Your task to perform on an android device: Check the news Image 0: 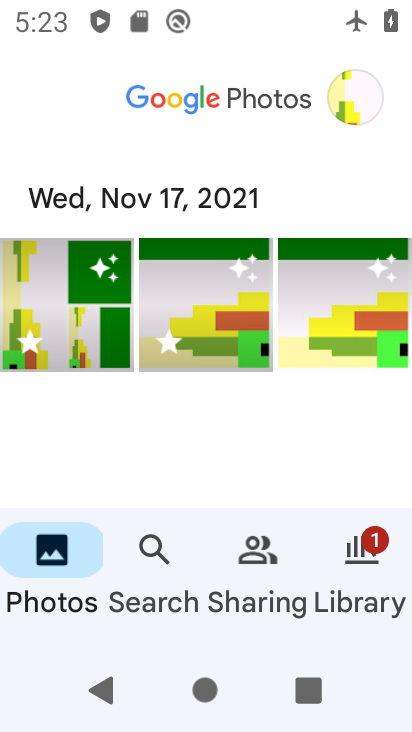
Step 0: press home button
Your task to perform on an android device: Check the news Image 1: 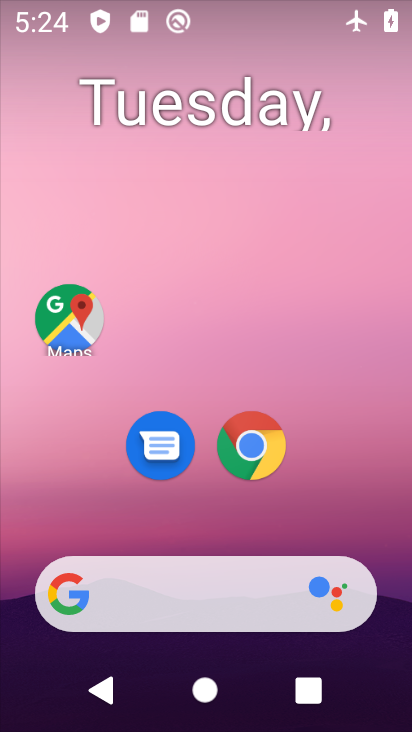
Step 1: drag from (303, 513) to (332, 74)
Your task to perform on an android device: Check the news Image 2: 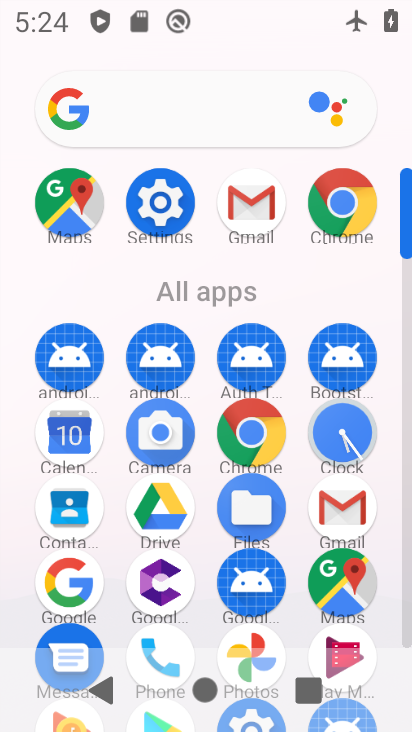
Step 2: drag from (330, 3) to (314, 392)
Your task to perform on an android device: Check the news Image 3: 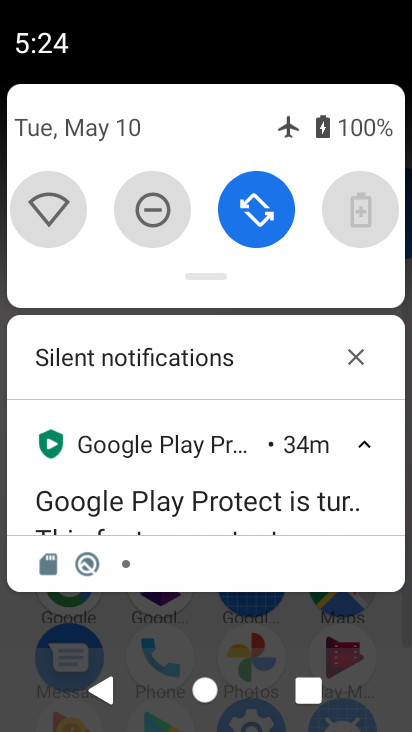
Step 3: drag from (307, 231) to (291, 542)
Your task to perform on an android device: Check the news Image 4: 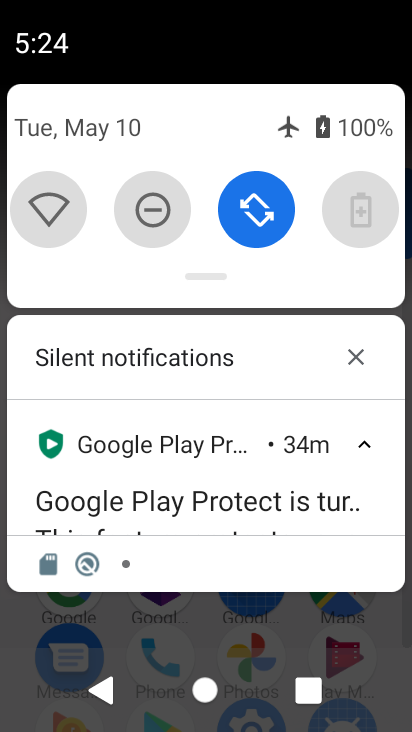
Step 4: drag from (393, 171) to (0, 169)
Your task to perform on an android device: Check the news Image 5: 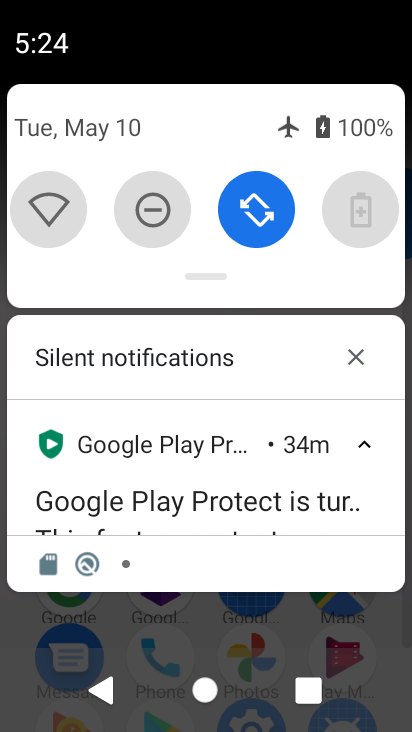
Step 5: drag from (304, 239) to (13, 217)
Your task to perform on an android device: Check the news Image 6: 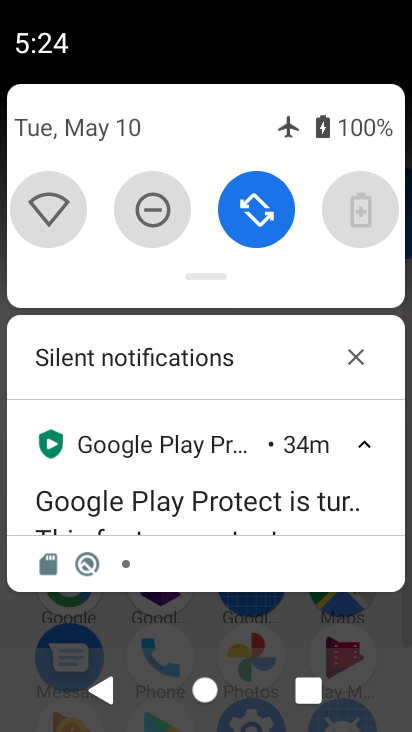
Step 6: drag from (228, 266) to (219, 643)
Your task to perform on an android device: Check the news Image 7: 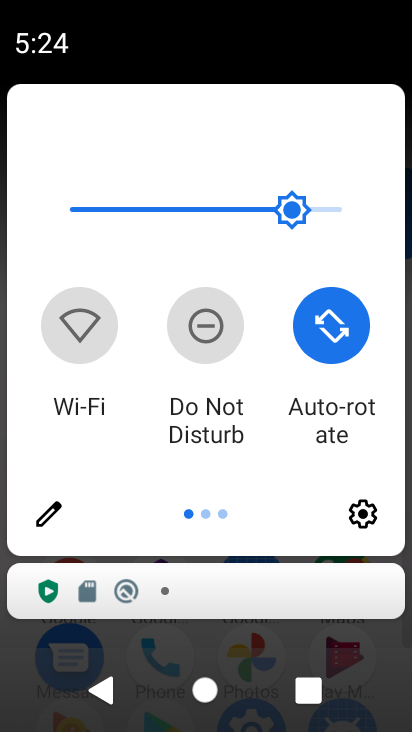
Step 7: drag from (387, 318) to (0, 328)
Your task to perform on an android device: Check the news Image 8: 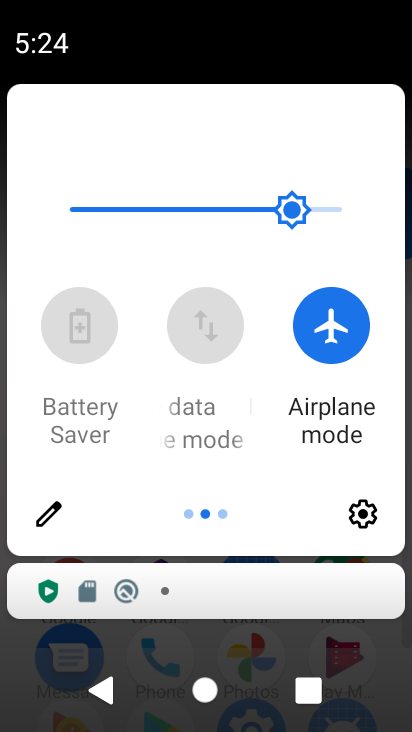
Step 8: click (325, 328)
Your task to perform on an android device: Check the news Image 9: 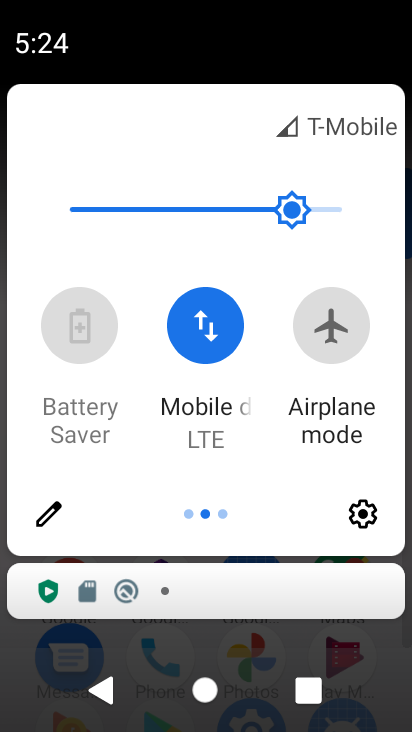
Step 9: drag from (393, 652) to (385, 112)
Your task to perform on an android device: Check the news Image 10: 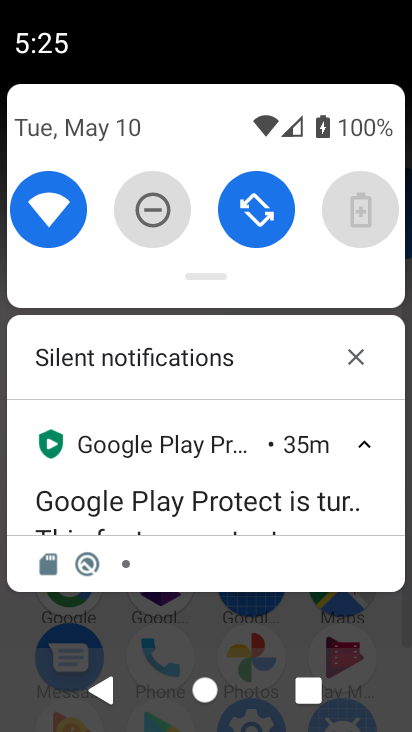
Step 10: drag from (344, 587) to (352, 207)
Your task to perform on an android device: Check the news Image 11: 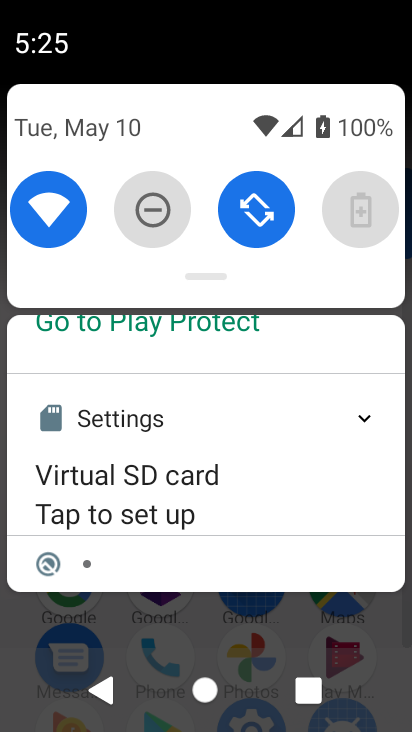
Step 11: click (380, 633)
Your task to perform on an android device: Check the news Image 12: 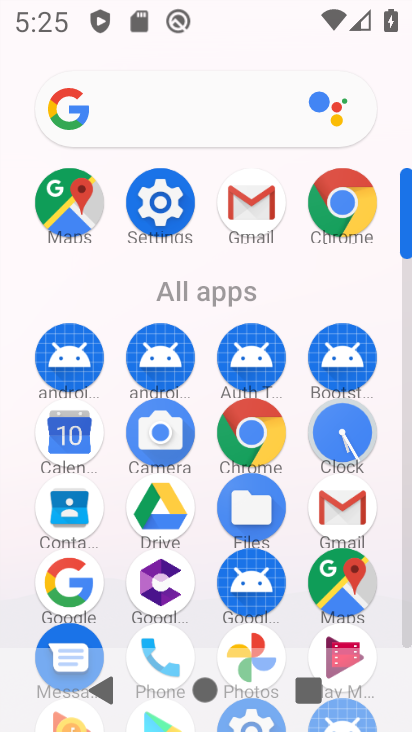
Step 12: click (338, 209)
Your task to perform on an android device: Check the news Image 13: 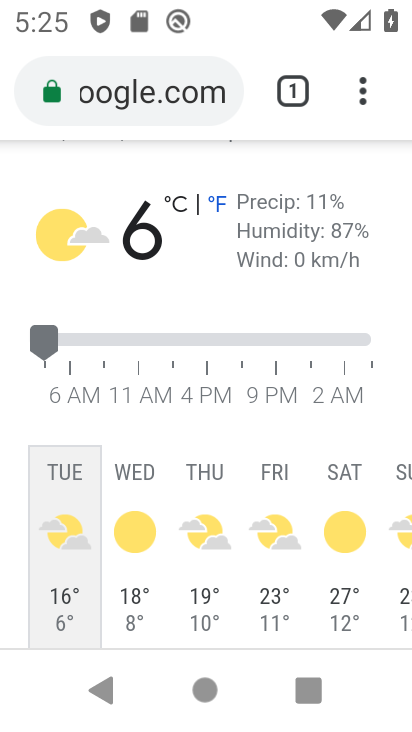
Step 13: click (174, 95)
Your task to perform on an android device: Check the news Image 14: 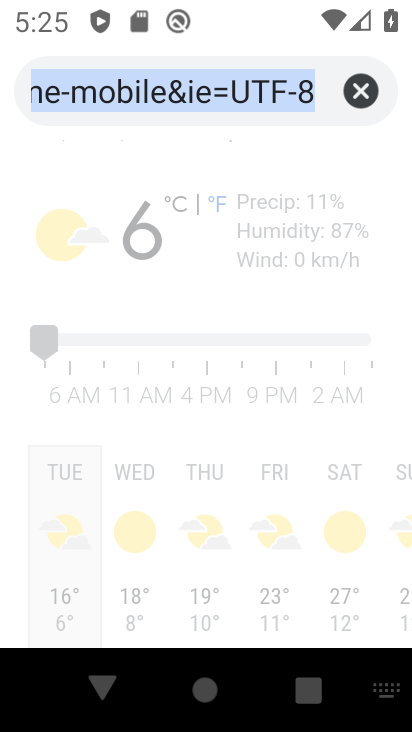
Step 14: click (371, 87)
Your task to perform on an android device: Check the news Image 15: 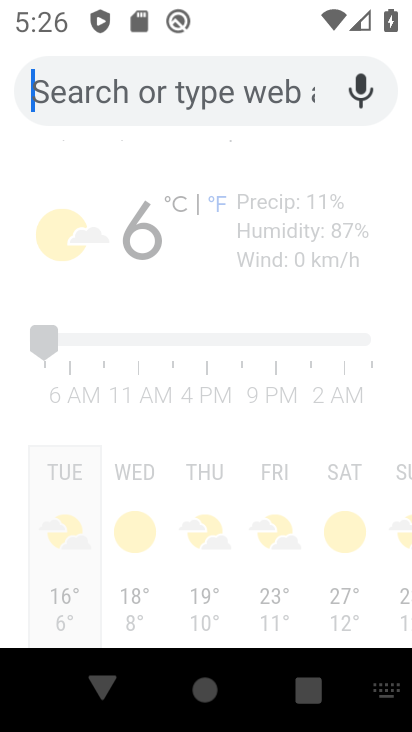
Step 15: type " news"
Your task to perform on an android device: Check the news Image 16: 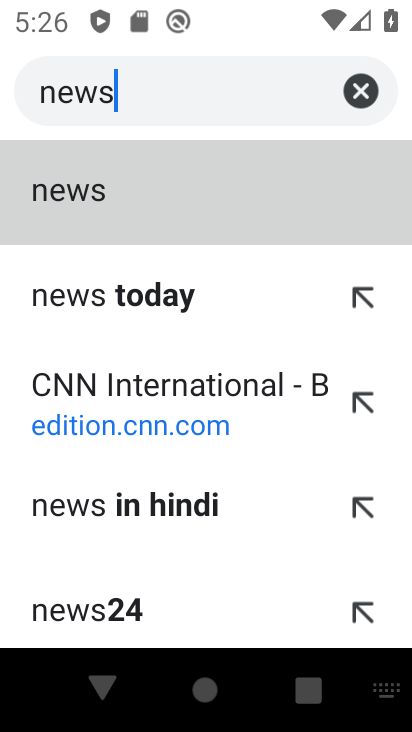
Step 16: click (69, 194)
Your task to perform on an android device: Check the news Image 17: 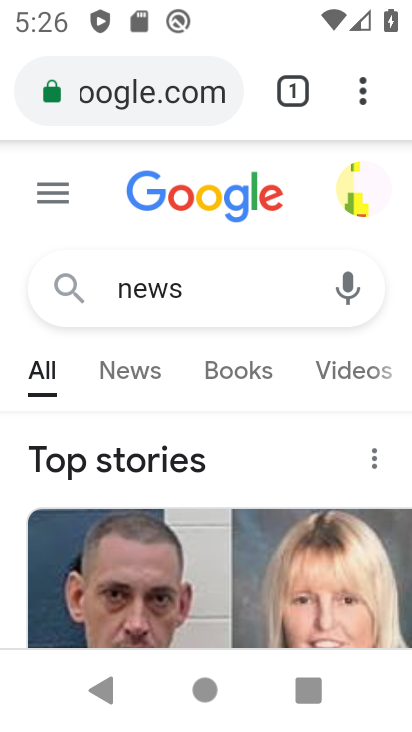
Step 17: task complete